Your task to perform on an android device: Open location settings Image 0: 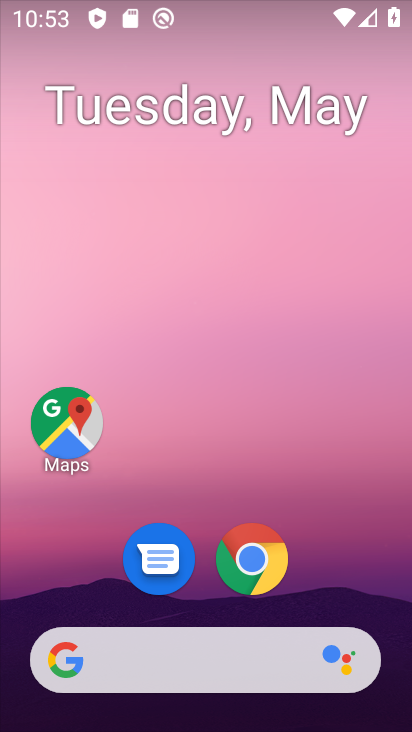
Step 0: drag from (395, 663) to (384, 20)
Your task to perform on an android device: Open location settings Image 1: 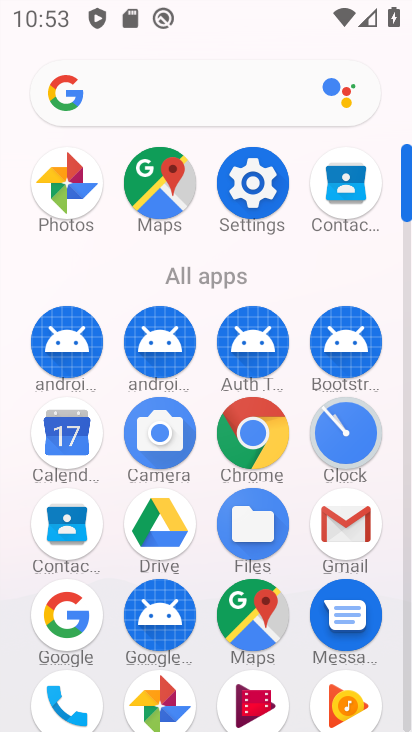
Step 1: click (253, 166)
Your task to perform on an android device: Open location settings Image 2: 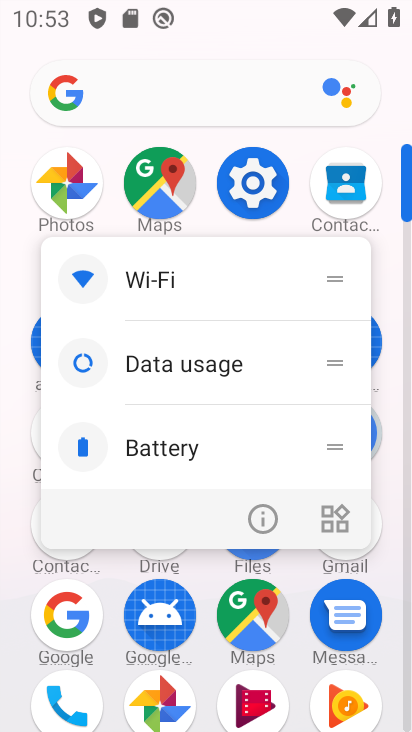
Step 2: click (251, 212)
Your task to perform on an android device: Open location settings Image 3: 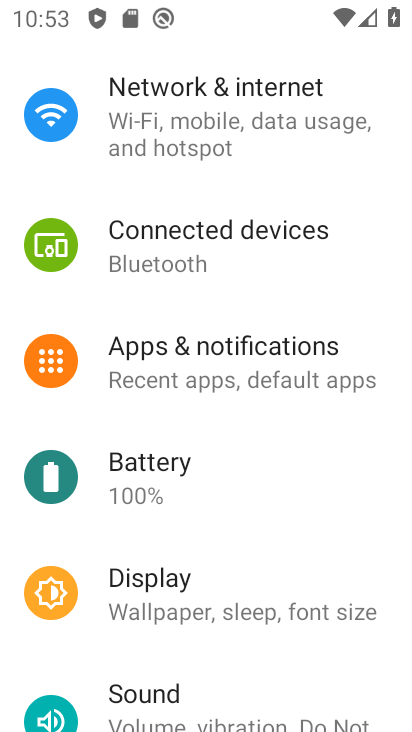
Step 3: drag from (200, 602) to (168, 18)
Your task to perform on an android device: Open location settings Image 4: 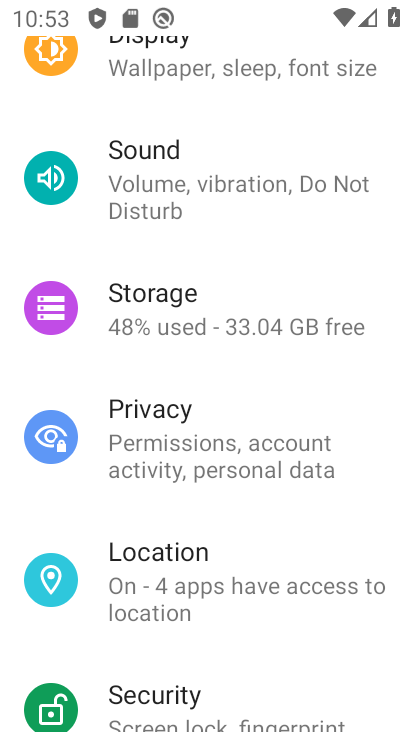
Step 4: click (194, 563)
Your task to perform on an android device: Open location settings Image 5: 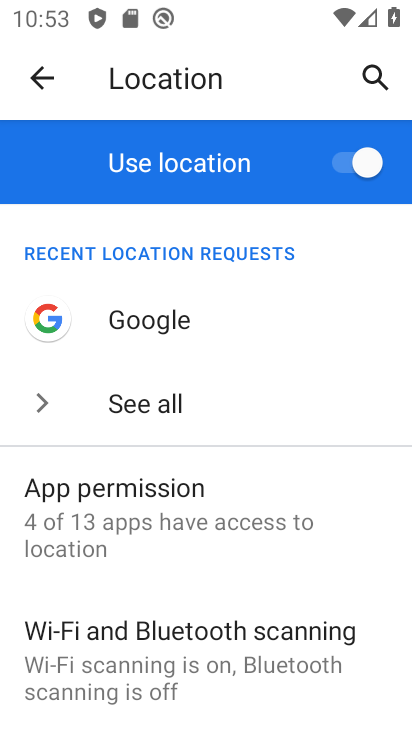
Step 5: task complete